Your task to perform on an android device: toggle show notifications on the lock screen Image 0: 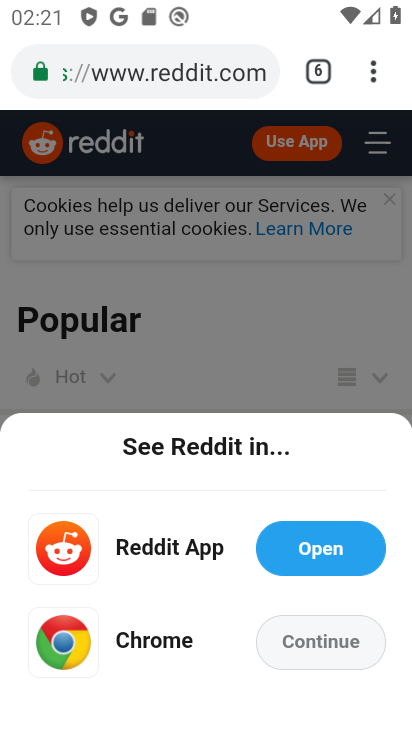
Step 0: press home button
Your task to perform on an android device: toggle show notifications on the lock screen Image 1: 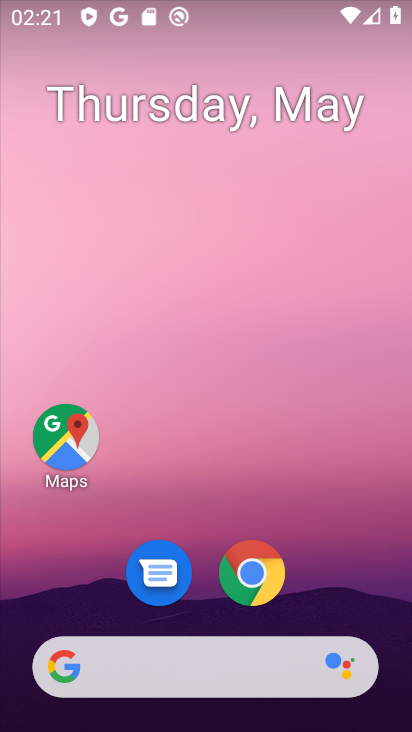
Step 1: drag from (300, 550) to (304, 94)
Your task to perform on an android device: toggle show notifications on the lock screen Image 2: 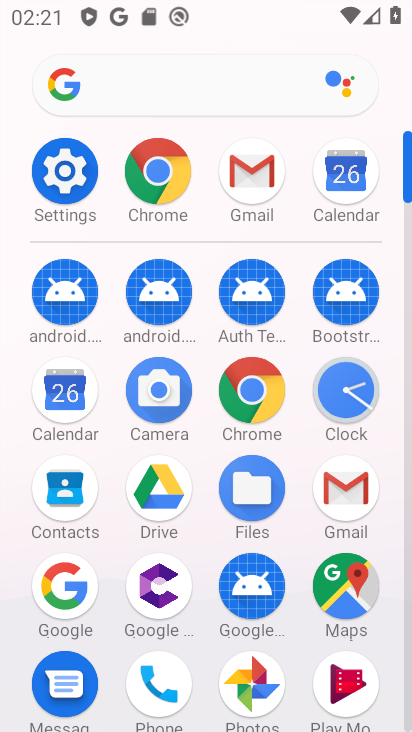
Step 2: click (74, 158)
Your task to perform on an android device: toggle show notifications on the lock screen Image 3: 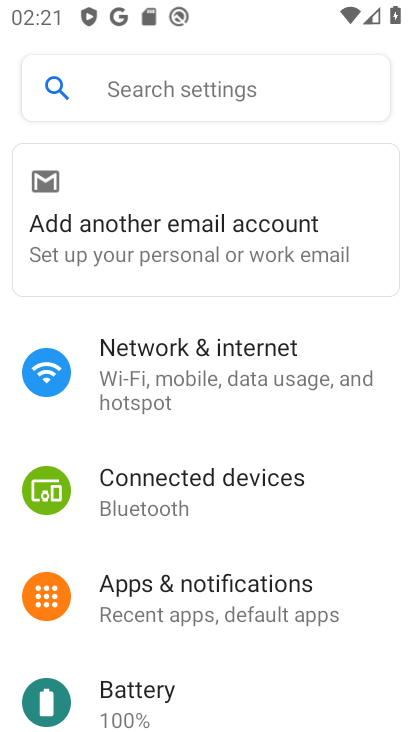
Step 3: click (202, 606)
Your task to perform on an android device: toggle show notifications on the lock screen Image 4: 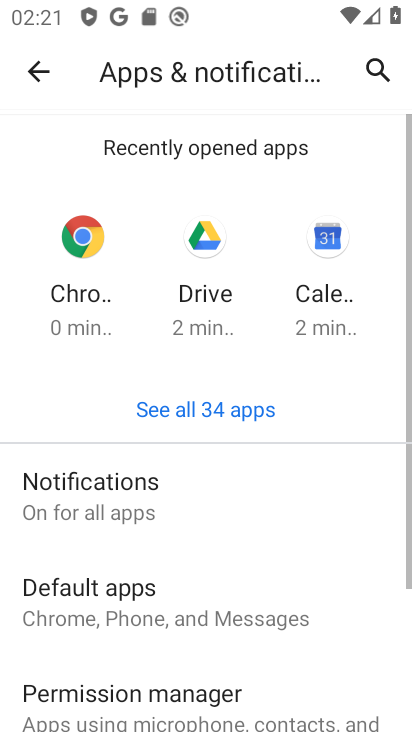
Step 4: click (166, 499)
Your task to perform on an android device: toggle show notifications on the lock screen Image 5: 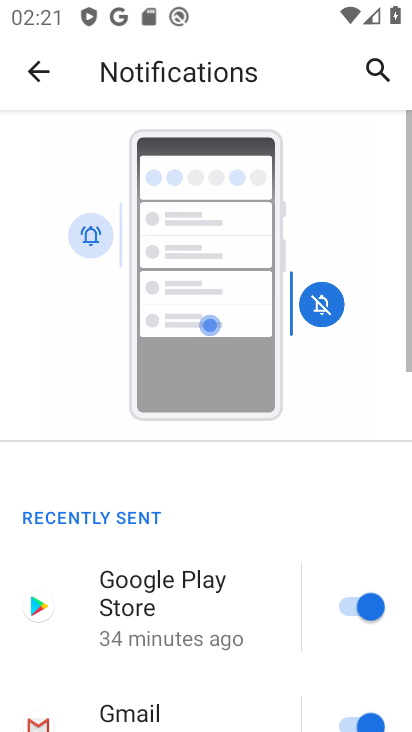
Step 5: drag from (174, 582) to (219, 269)
Your task to perform on an android device: toggle show notifications on the lock screen Image 6: 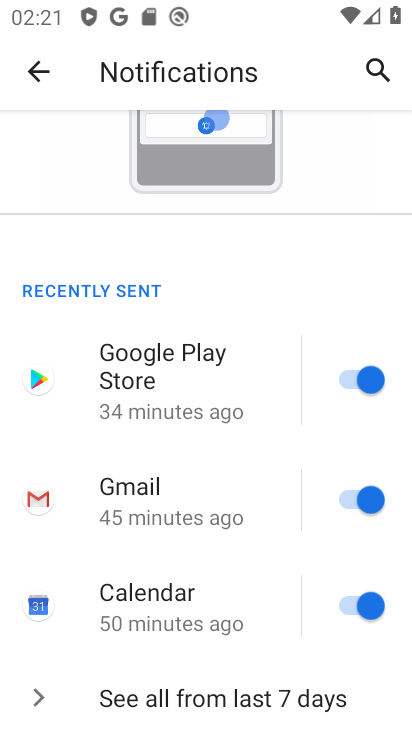
Step 6: drag from (156, 689) to (221, 299)
Your task to perform on an android device: toggle show notifications on the lock screen Image 7: 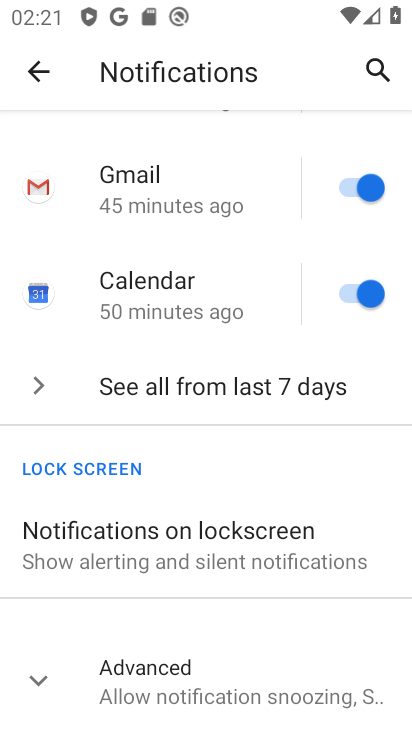
Step 7: click (152, 541)
Your task to perform on an android device: toggle show notifications on the lock screen Image 8: 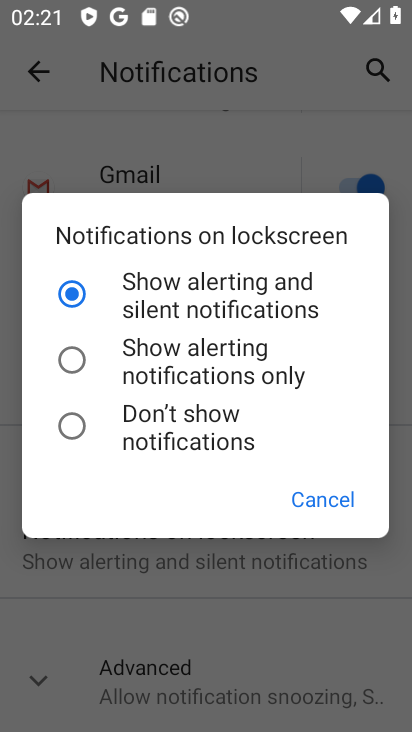
Step 8: click (124, 342)
Your task to perform on an android device: toggle show notifications on the lock screen Image 9: 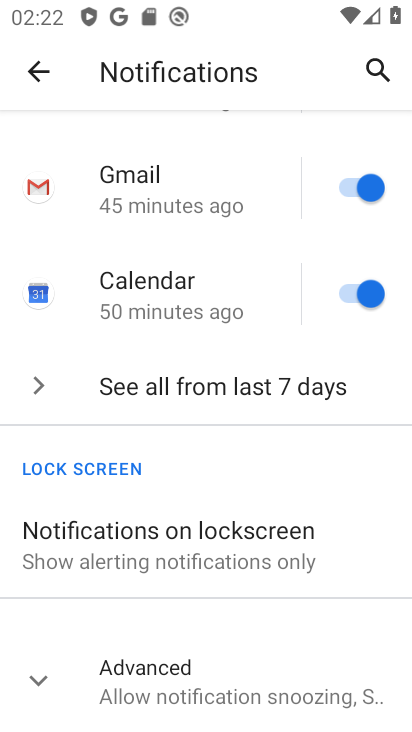
Step 9: task complete